Your task to perform on an android device: What is the speed of a plane? Image 0: 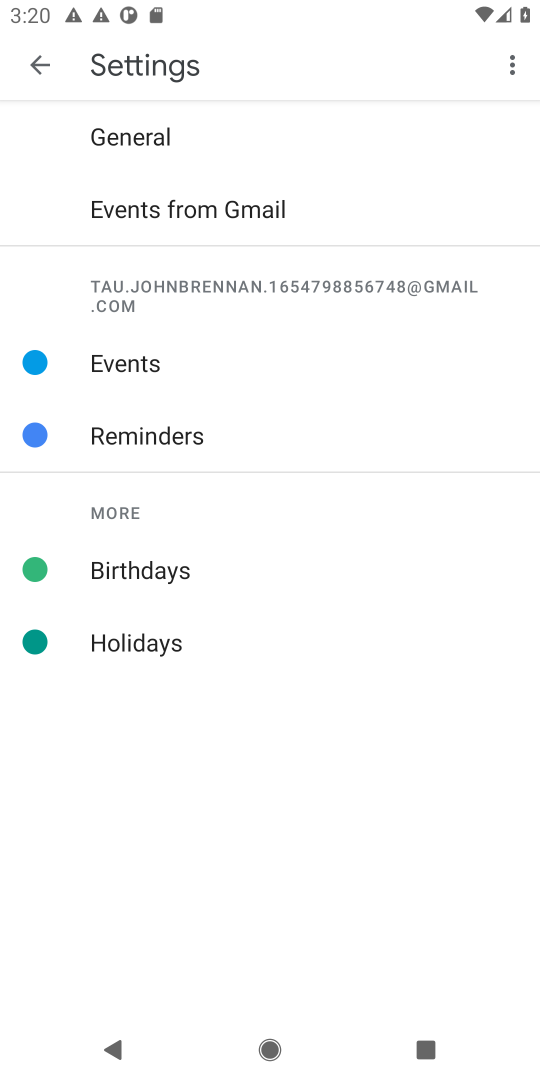
Step 0: press home button
Your task to perform on an android device: What is the speed of a plane? Image 1: 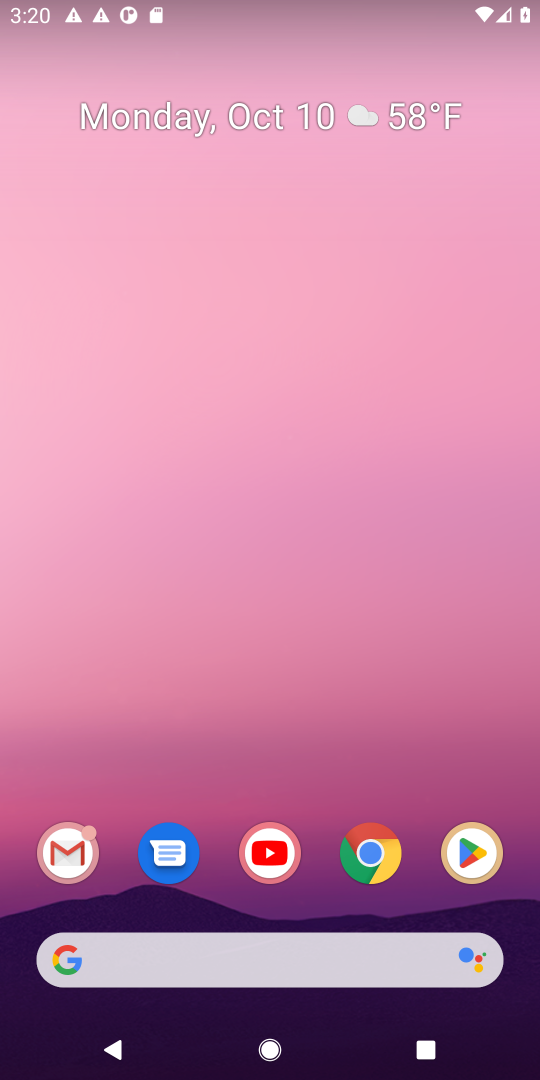
Step 1: drag from (304, 792) to (210, 39)
Your task to perform on an android device: What is the speed of a plane? Image 2: 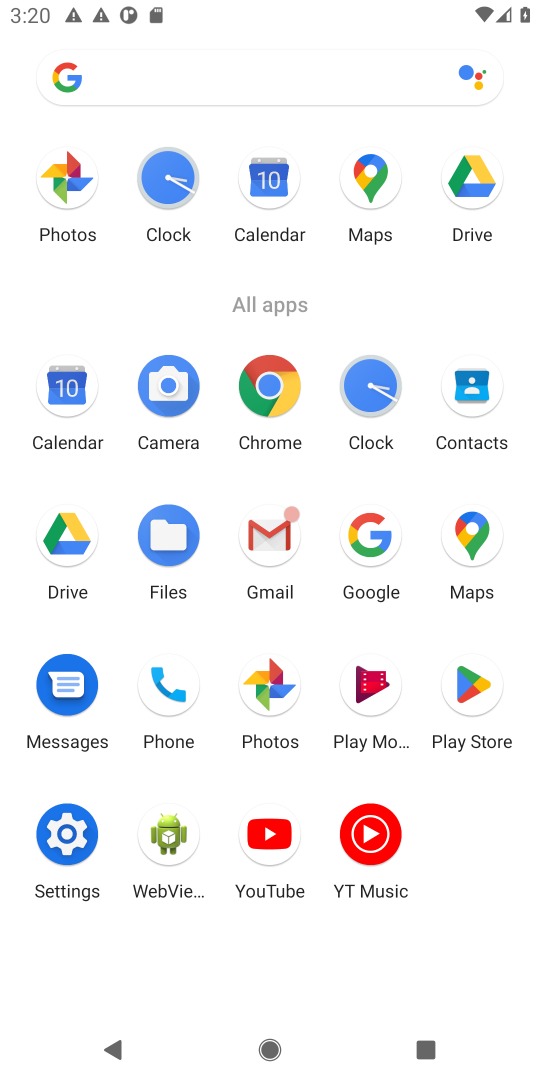
Step 2: click (278, 373)
Your task to perform on an android device: What is the speed of a plane? Image 3: 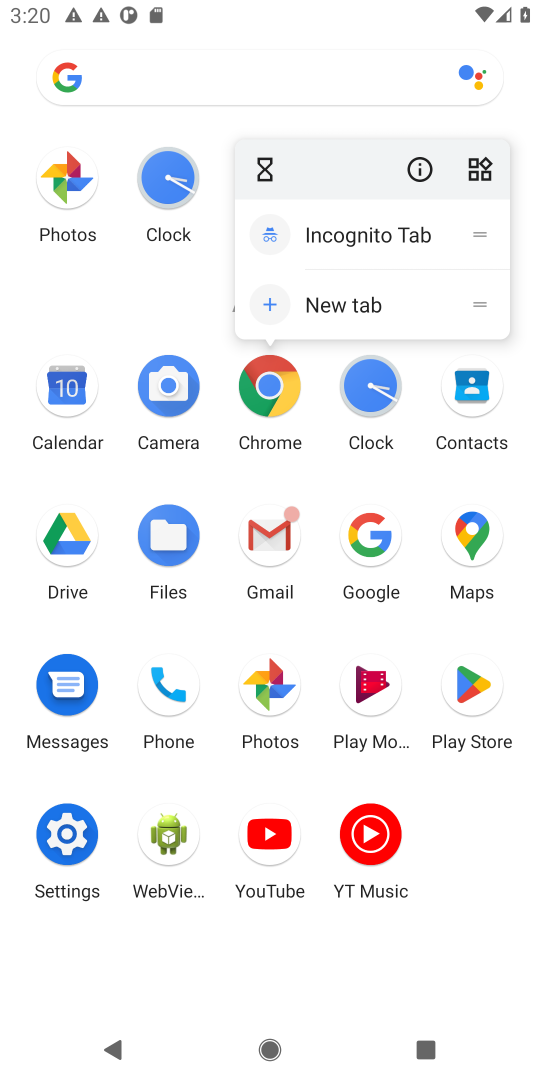
Step 3: click (255, 381)
Your task to perform on an android device: What is the speed of a plane? Image 4: 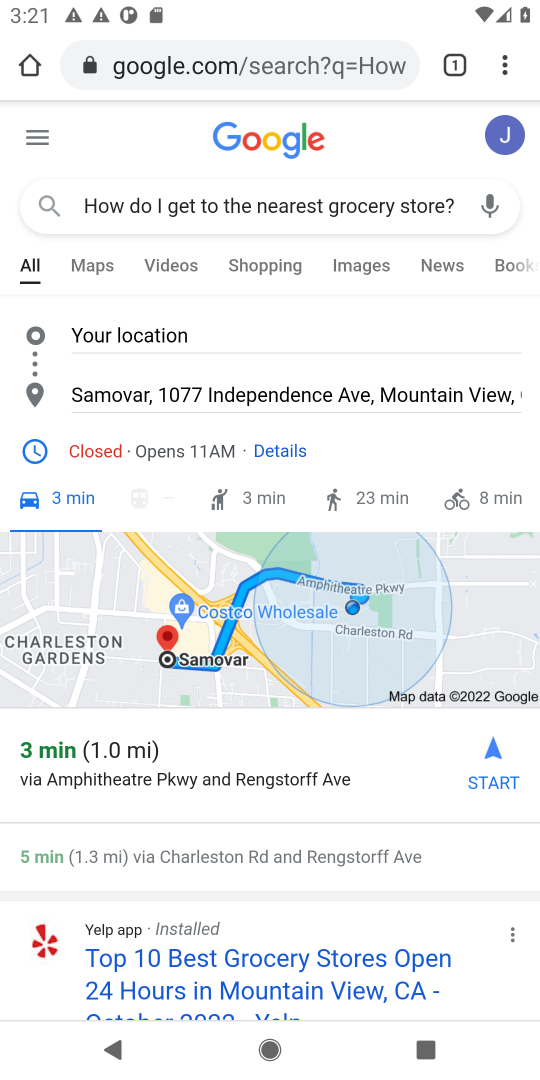
Step 4: click (168, 72)
Your task to perform on an android device: What is the speed of a plane? Image 5: 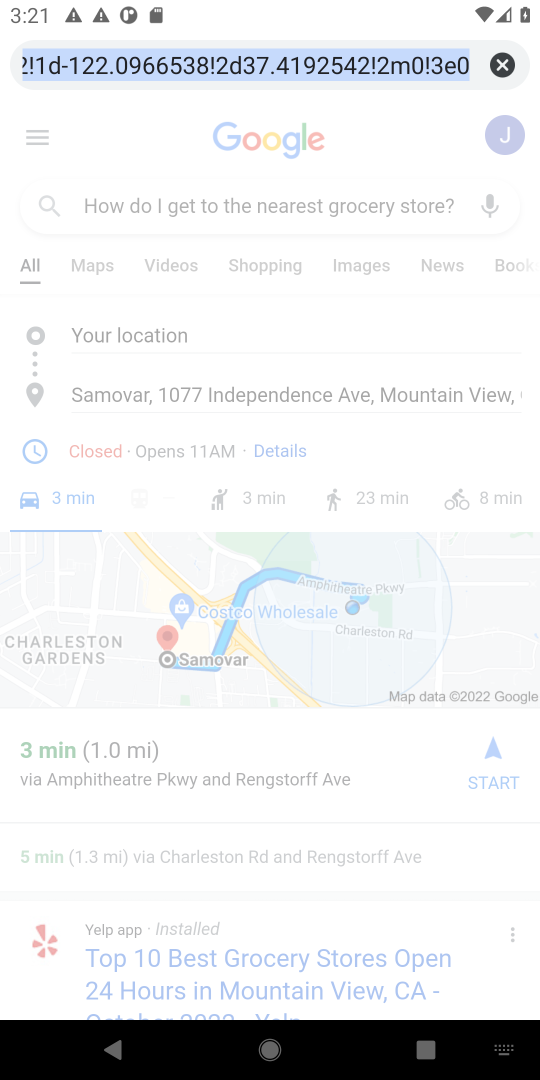
Step 5: click (496, 67)
Your task to perform on an android device: What is the speed of a plane? Image 6: 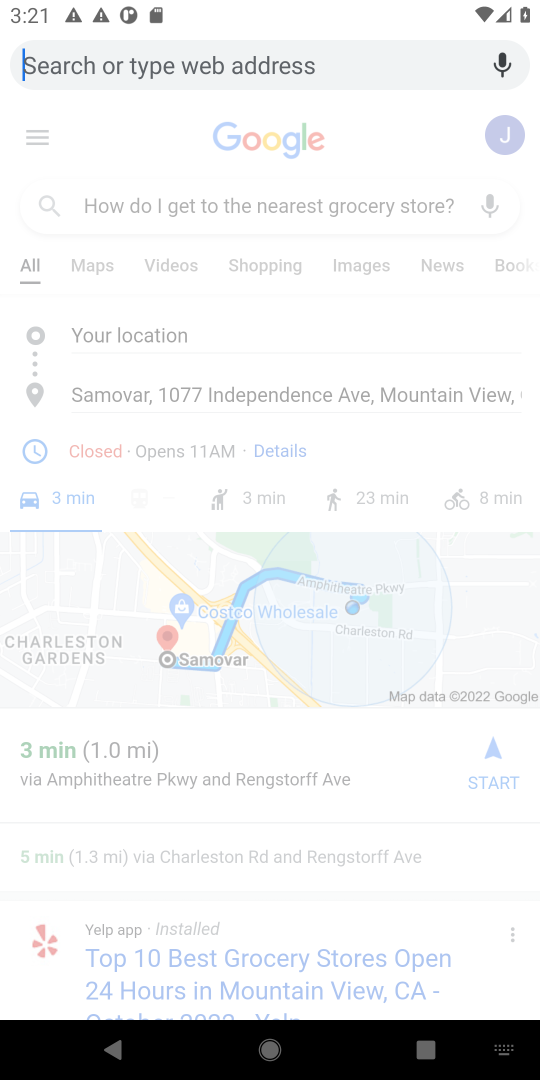
Step 6: type "What is the speed of a plane?"
Your task to perform on an android device: What is the speed of a plane? Image 7: 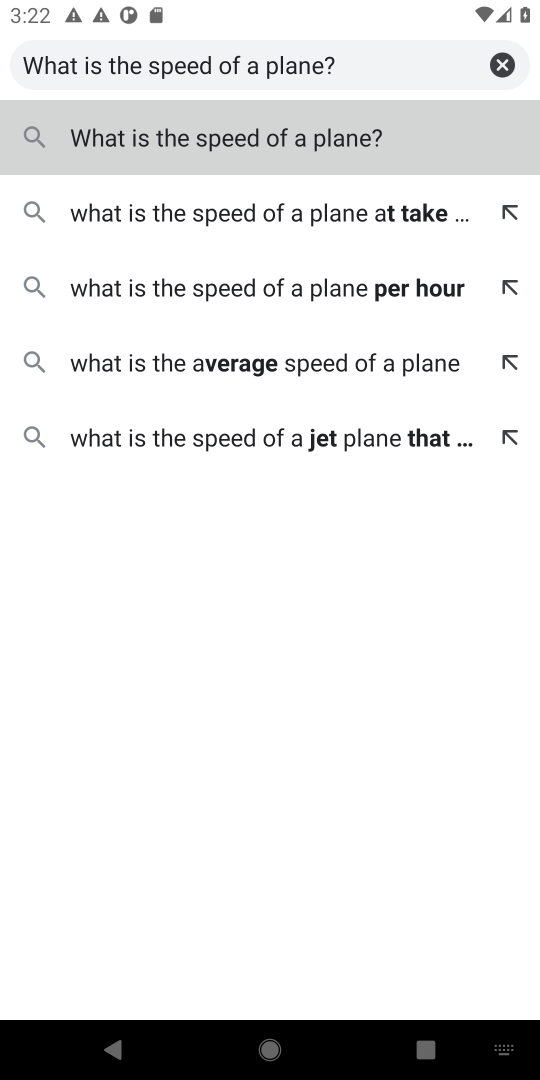
Step 7: click (234, 133)
Your task to perform on an android device: What is the speed of a plane? Image 8: 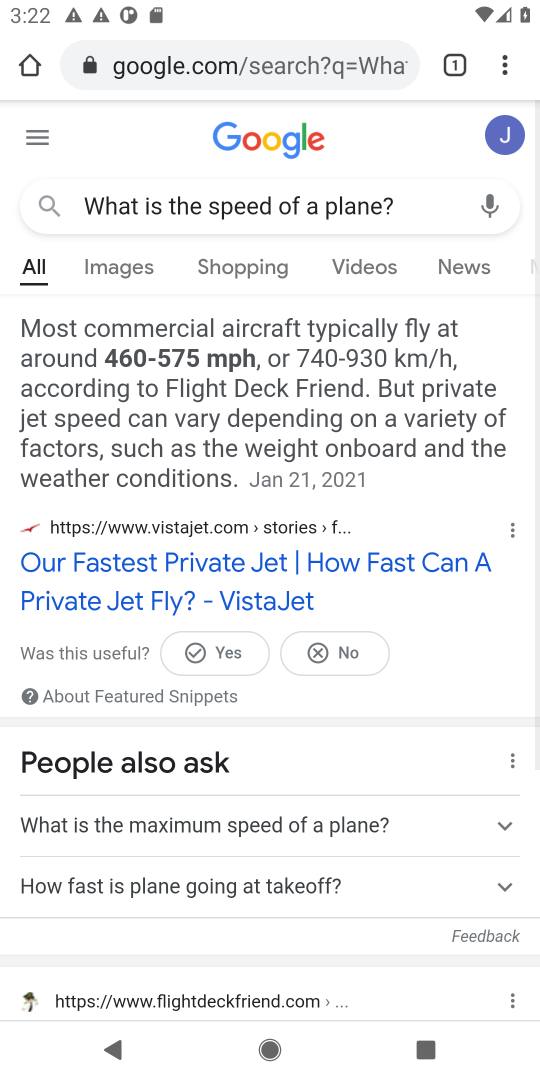
Step 8: task complete